Your task to perform on an android device: Open the calendar and show me this week's events Image 0: 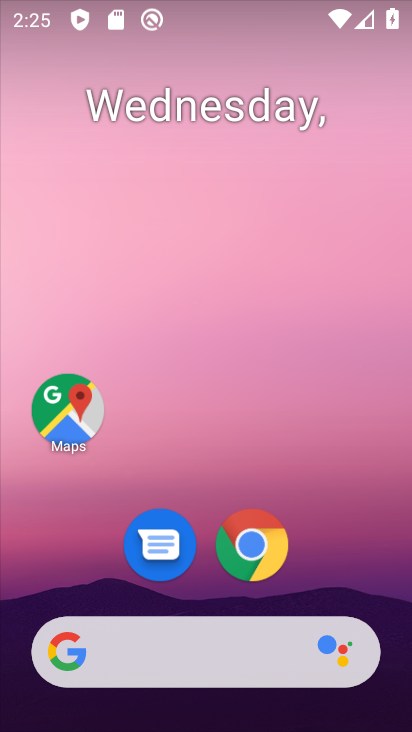
Step 0: press home button
Your task to perform on an android device: Open the calendar and show me this week's events Image 1: 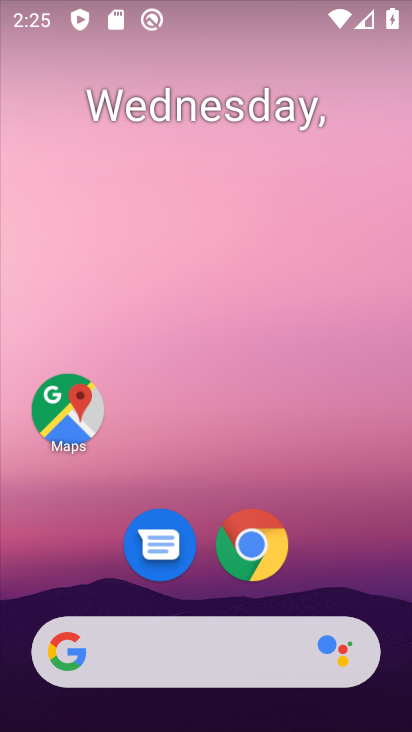
Step 1: drag from (317, 184) to (325, 38)
Your task to perform on an android device: Open the calendar and show me this week's events Image 2: 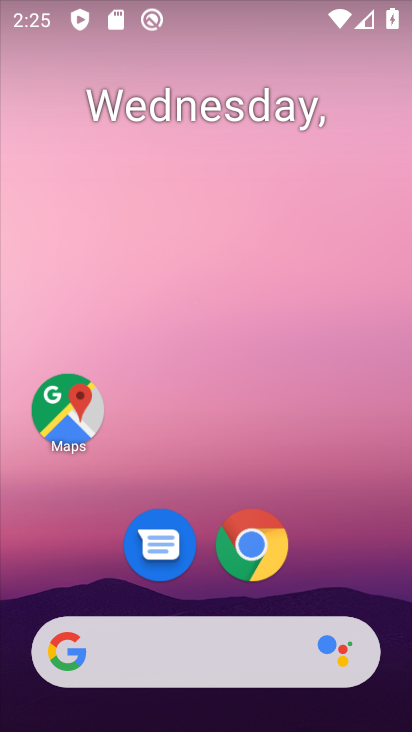
Step 2: drag from (163, 650) to (305, 13)
Your task to perform on an android device: Open the calendar and show me this week's events Image 3: 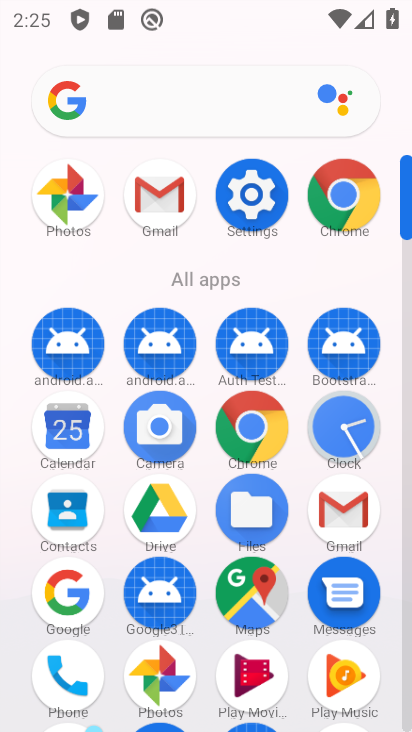
Step 3: click (78, 438)
Your task to perform on an android device: Open the calendar and show me this week's events Image 4: 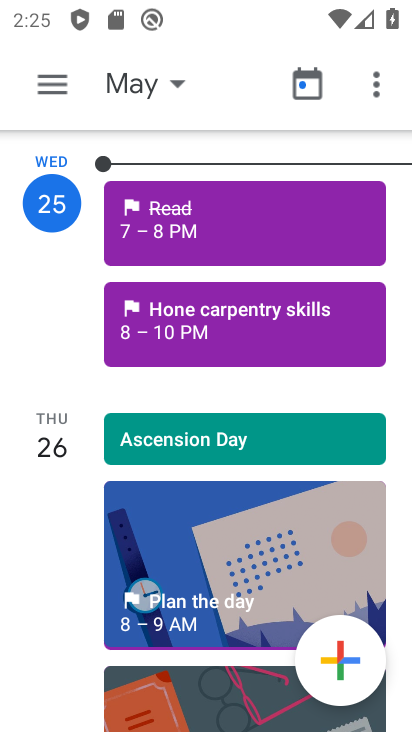
Step 4: click (130, 79)
Your task to perform on an android device: Open the calendar and show me this week's events Image 5: 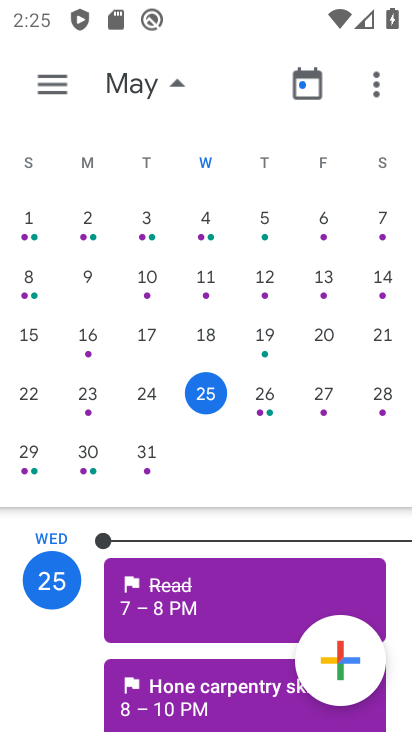
Step 5: click (212, 397)
Your task to perform on an android device: Open the calendar and show me this week's events Image 6: 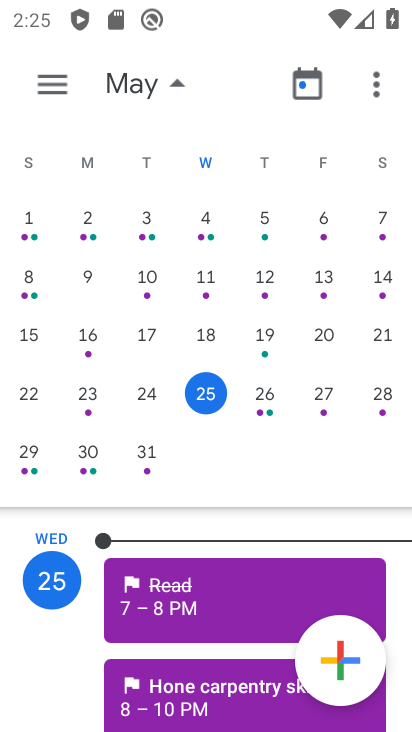
Step 6: click (59, 92)
Your task to perform on an android device: Open the calendar and show me this week's events Image 7: 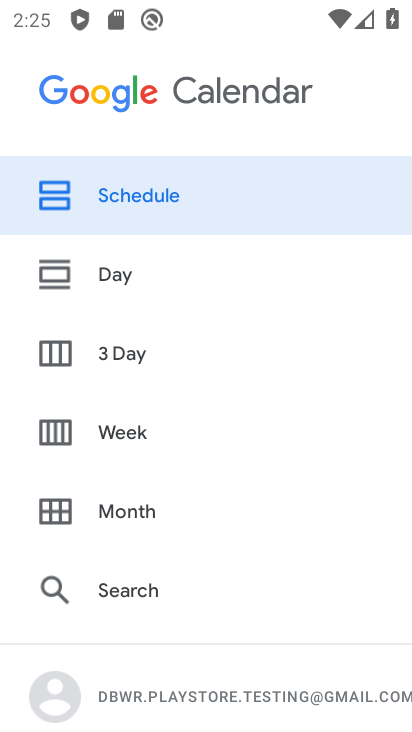
Step 7: click (108, 198)
Your task to perform on an android device: Open the calendar and show me this week's events Image 8: 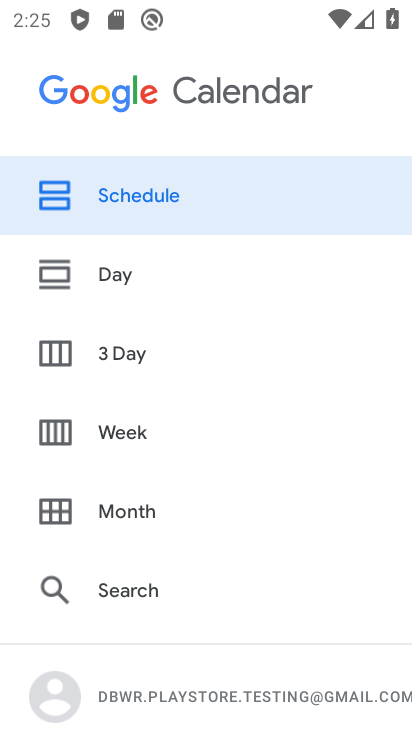
Step 8: click (142, 205)
Your task to perform on an android device: Open the calendar and show me this week's events Image 9: 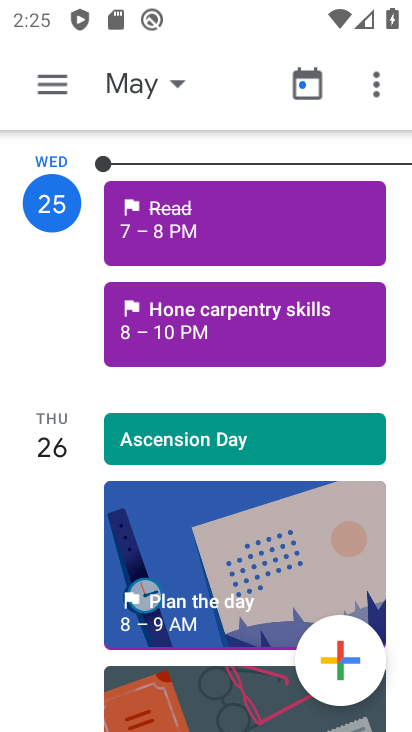
Step 9: click (238, 336)
Your task to perform on an android device: Open the calendar and show me this week's events Image 10: 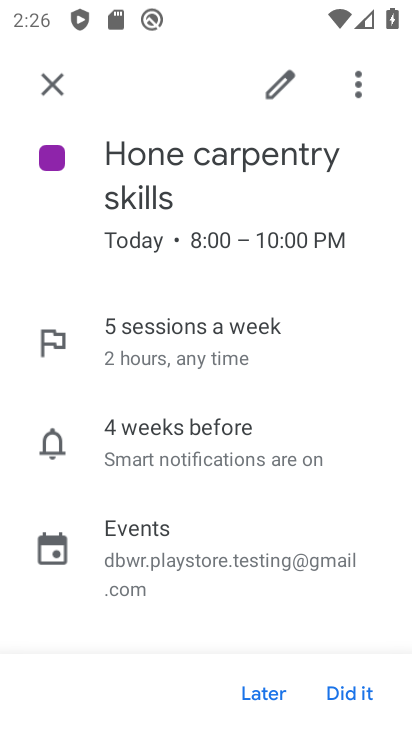
Step 10: task complete